Your task to perform on an android device: Open internet settings Image 0: 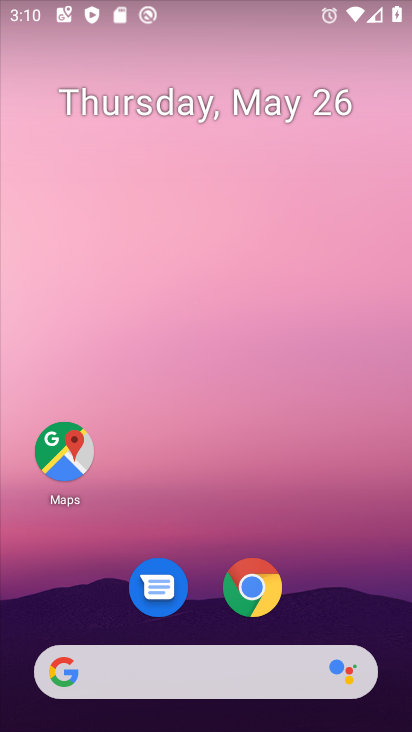
Step 0: drag from (362, 608) to (379, 167)
Your task to perform on an android device: Open internet settings Image 1: 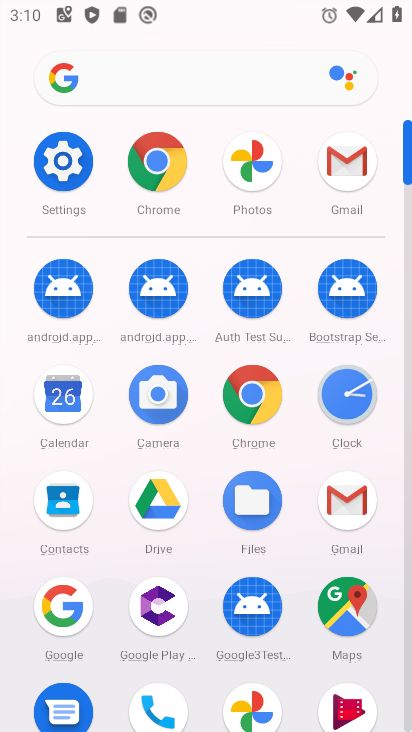
Step 1: click (72, 178)
Your task to perform on an android device: Open internet settings Image 2: 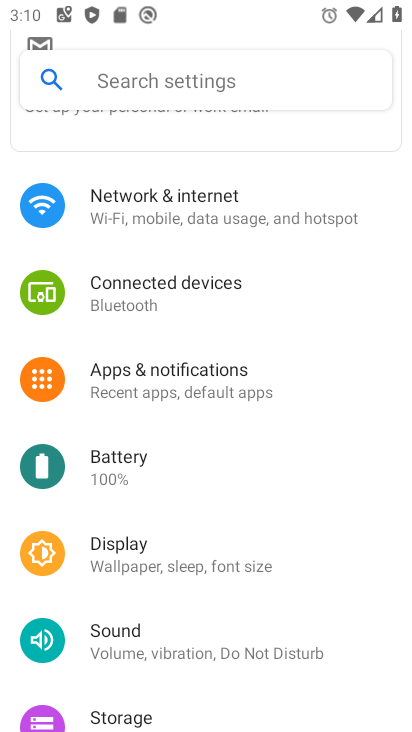
Step 2: drag from (312, 521) to (311, 322)
Your task to perform on an android device: Open internet settings Image 3: 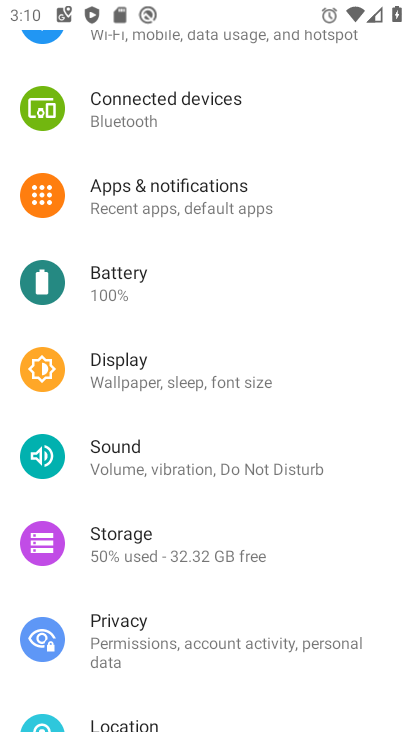
Step 3: drag from (318, 493) to (317, 369)
Your task to perform on an android device: Open internet settings Image 4: 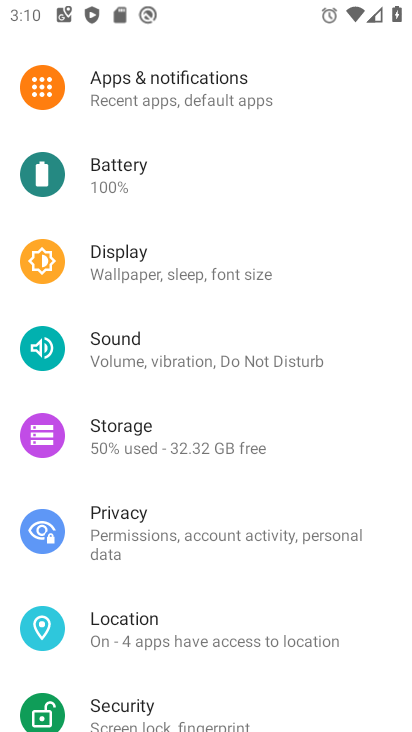
Step 4: drag from (344, 559) to (349, 368)
Your task to perform on an android device: Open internet settings Image 5: 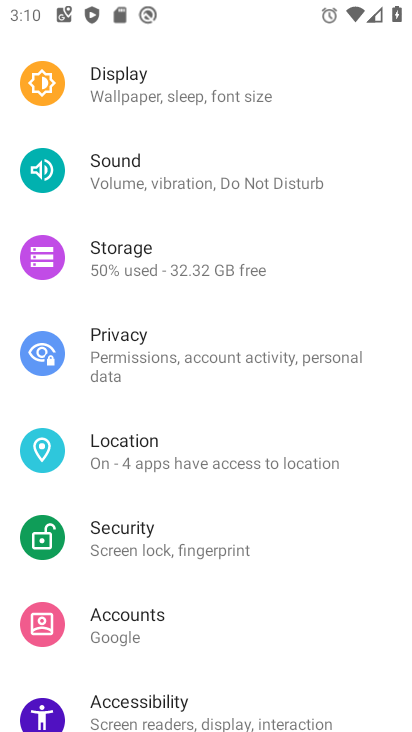
Step 5: drag from (350, 592) to (345, 470)
Your task to perform on an android device: Open internet settings Image 6: 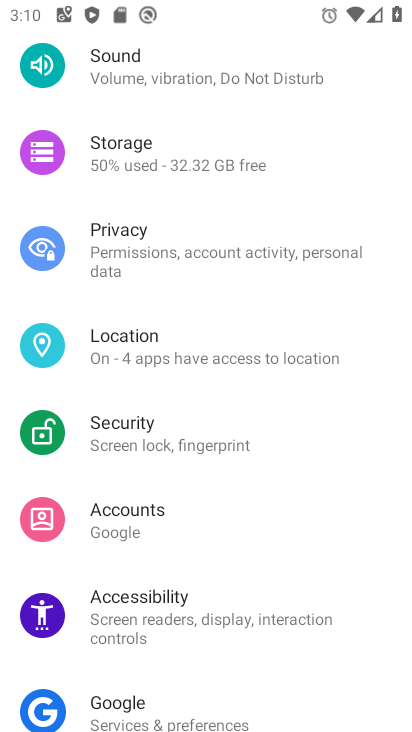
Step 6: drag from (333, 641) to (339, 492)
Your task to perform on an android device: Open internet settings Image 7: 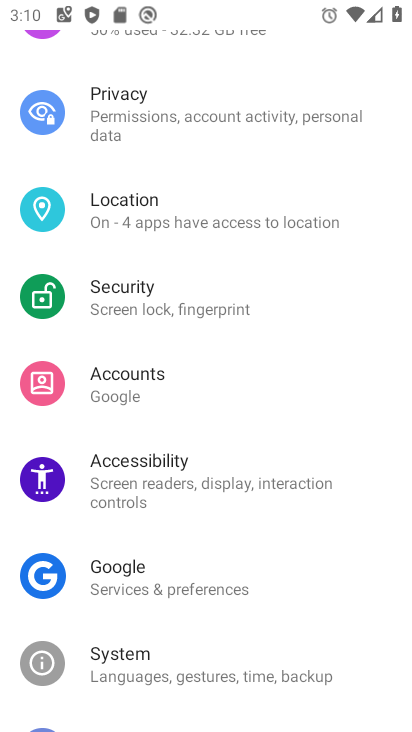
Step 7: drag from (339, 616) to (335, 451)
Your task to perform on an android device: Open internet settings Image 8: 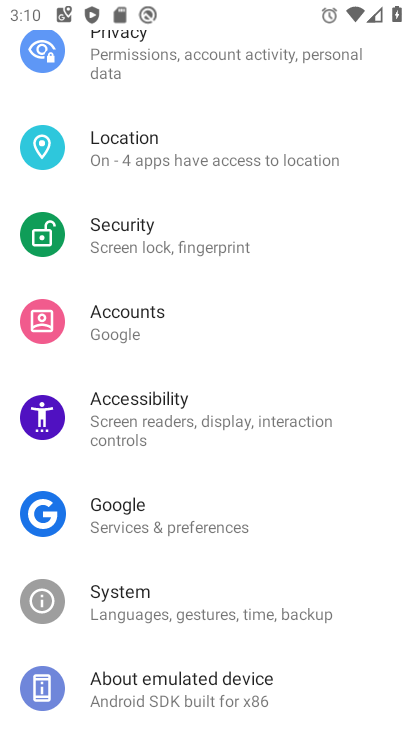
Step 8: drag from (326, 450) to (325, 544)
Your task to perform on an android device: Open internet settings Image 9: 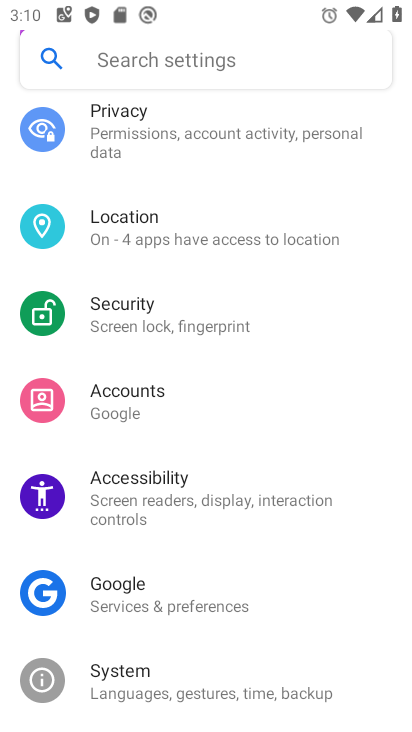
Step 9: drag from (331, 423) to (345, 521)
Your task to perform on an android device: Open internet settings Image 10: 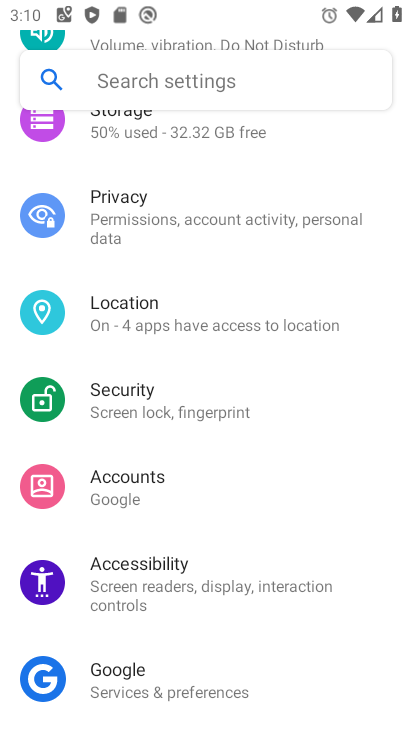
Step 10: drag from (338, 393) to (348, 495)
Your task to perform on an android device: Open internet settings Image 11: 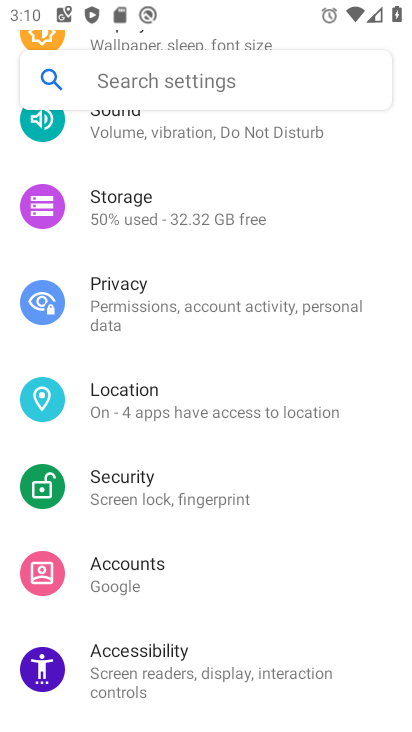
Step 11: drag from (348, 354) to (348, 467)
Your task to perform on an android device: Open internet settings Image 12: 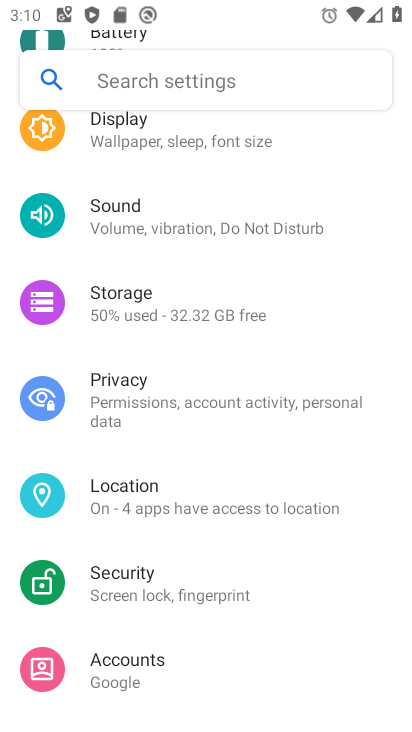
Step 12: drag from (325, 282) to (316, 443)
Your task to perform on an android device: Open internet settings Image 13: 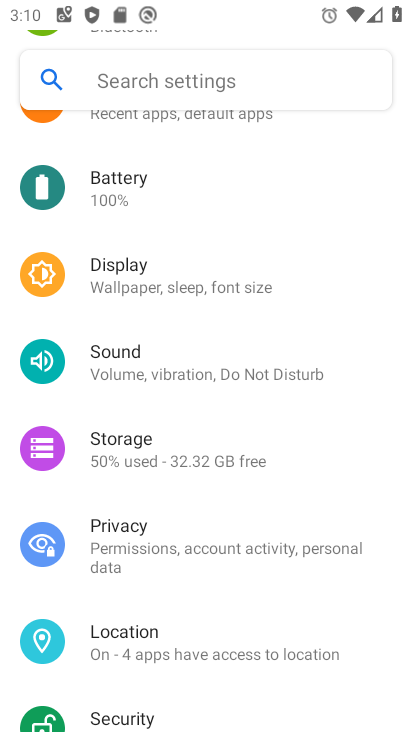
Step 13: drag from (299, 277) to (285, 420)
Your task to perform on an android device: Open internet settings Image 14: 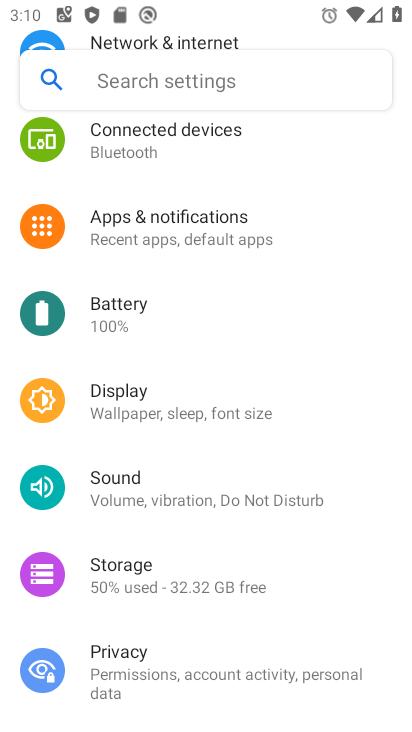
Step 14: drag from (306, 266) to (302, 378)
Your task to perform on an android device: Open internet settings Image 15: 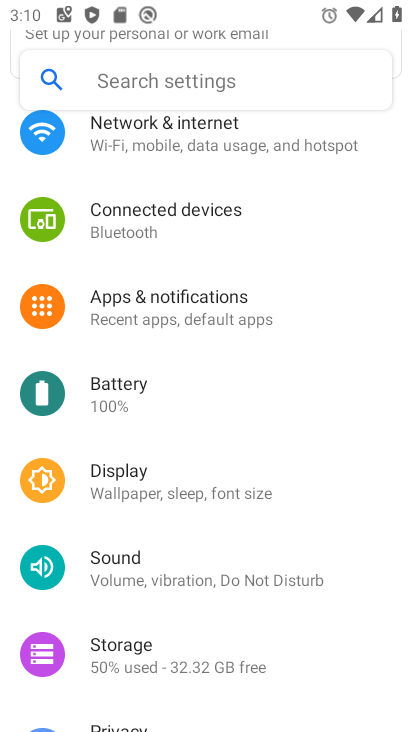
Step 15: drag from (310, 248) to (305, 383)
Your task to perform on an android device: Open internet settings Image 16: 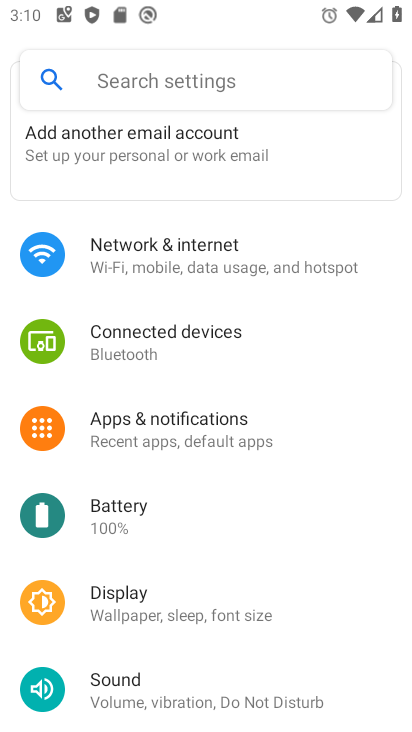
Step 16: drag from (309, 236) to (294, 415)
Your task to perform on an android device: Open internet settings Image 17: 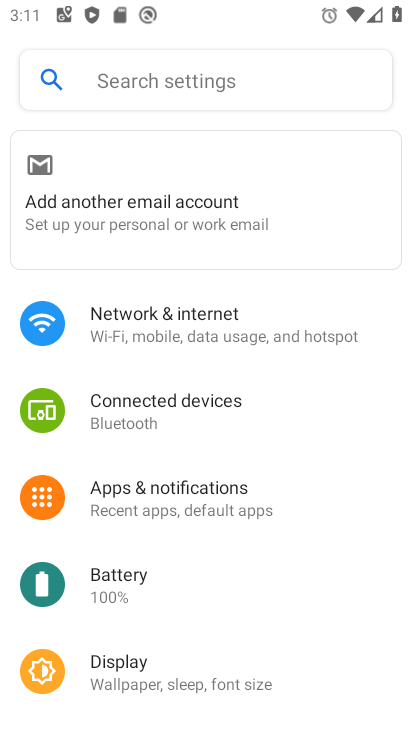
Step 17: click (235, 322)
Your task to perform on an android device: Open internet settings Image 18: 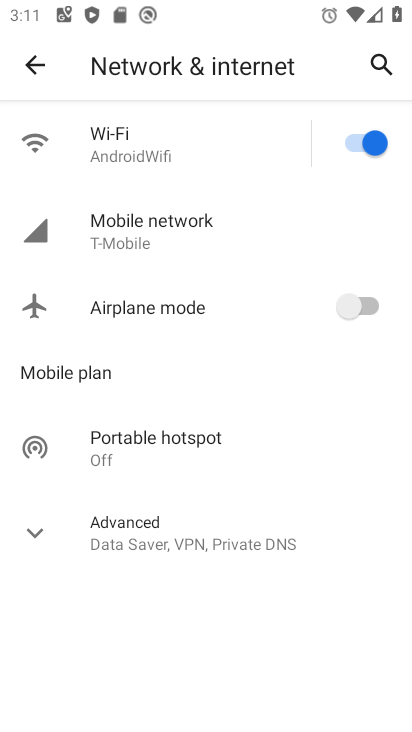
Step 18: task complete